Your task to perform on an android device: When is my next meeting? Image 0: 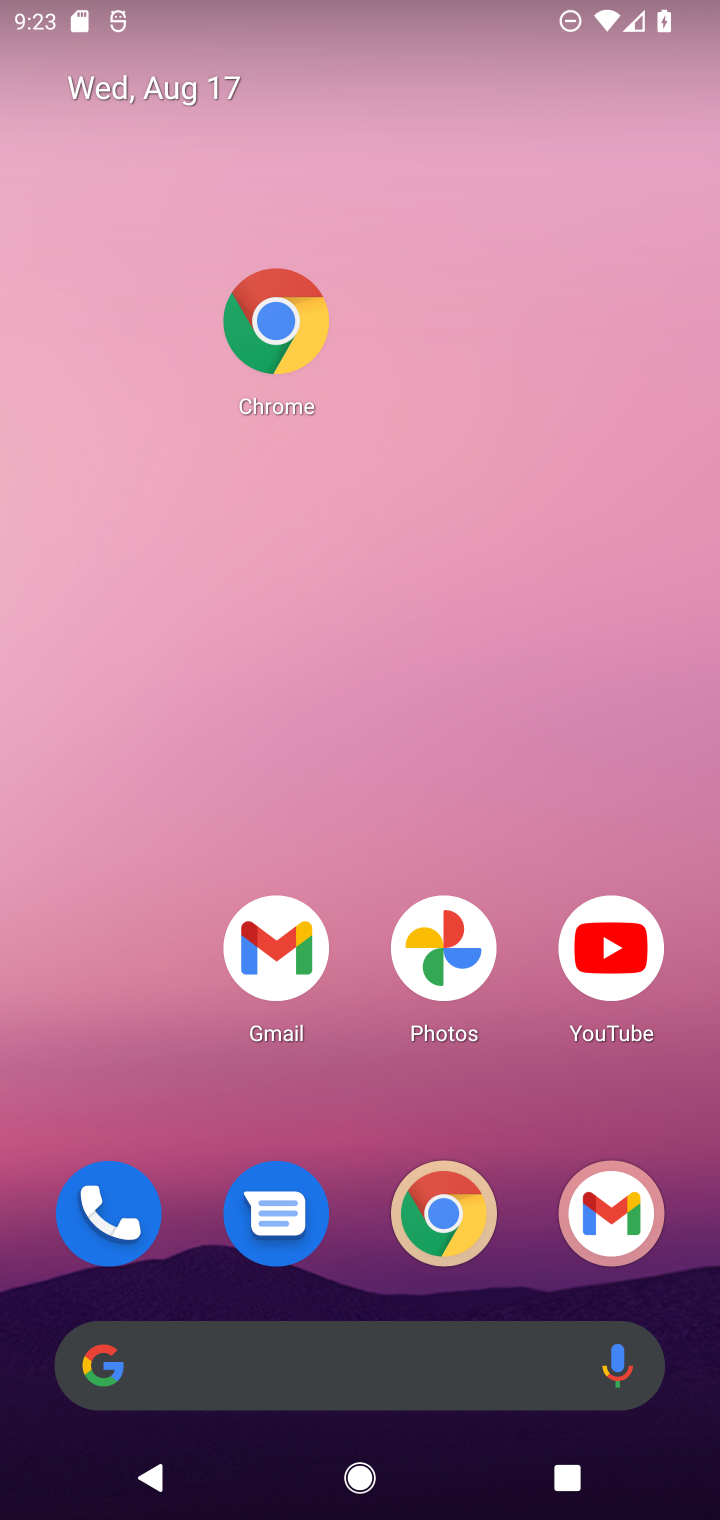
Step 0: drag from (371, 1306) to (382, 53)
Your task to perform on an android device: When is my next meeting? Image 1: 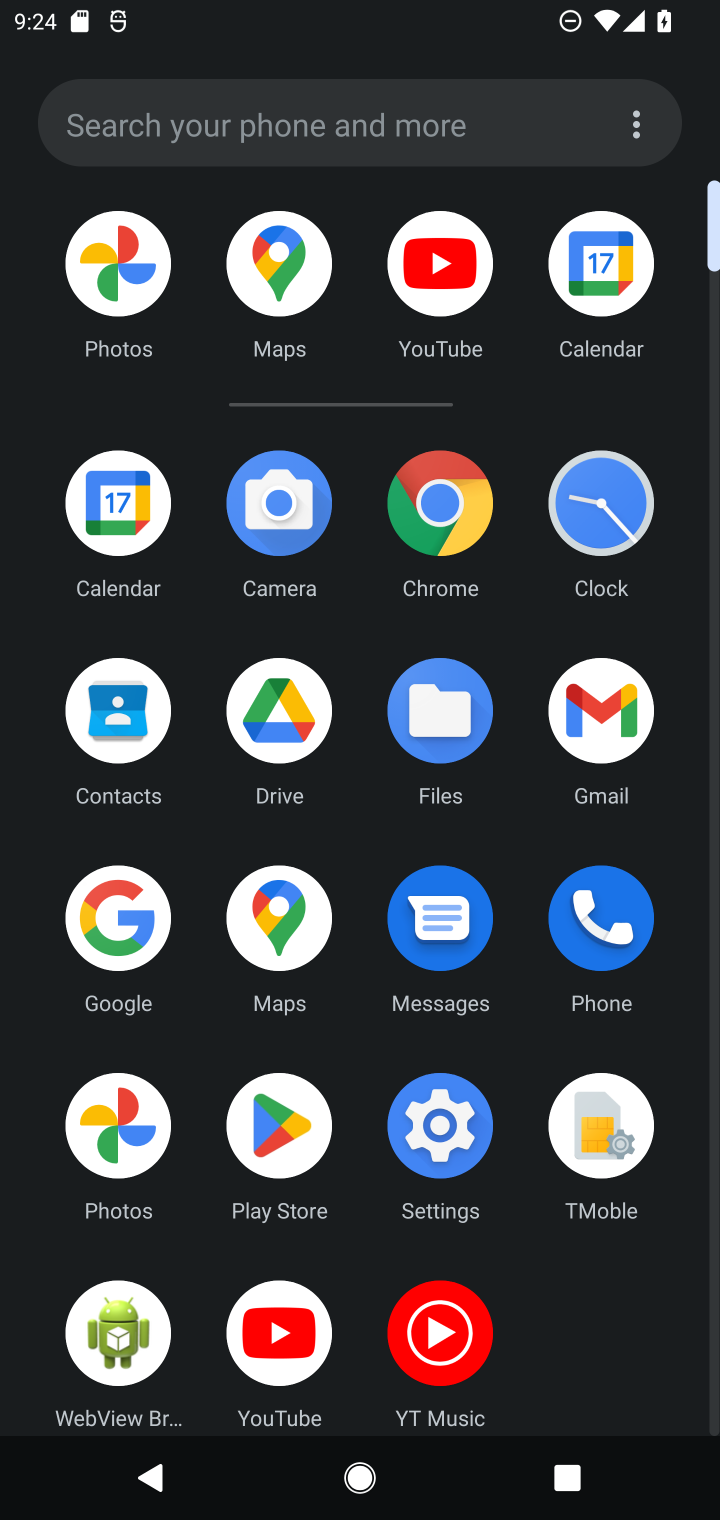
Step 1: click (609, 283)
Your task to perform on an android device: When is my next meeting? Image 2: 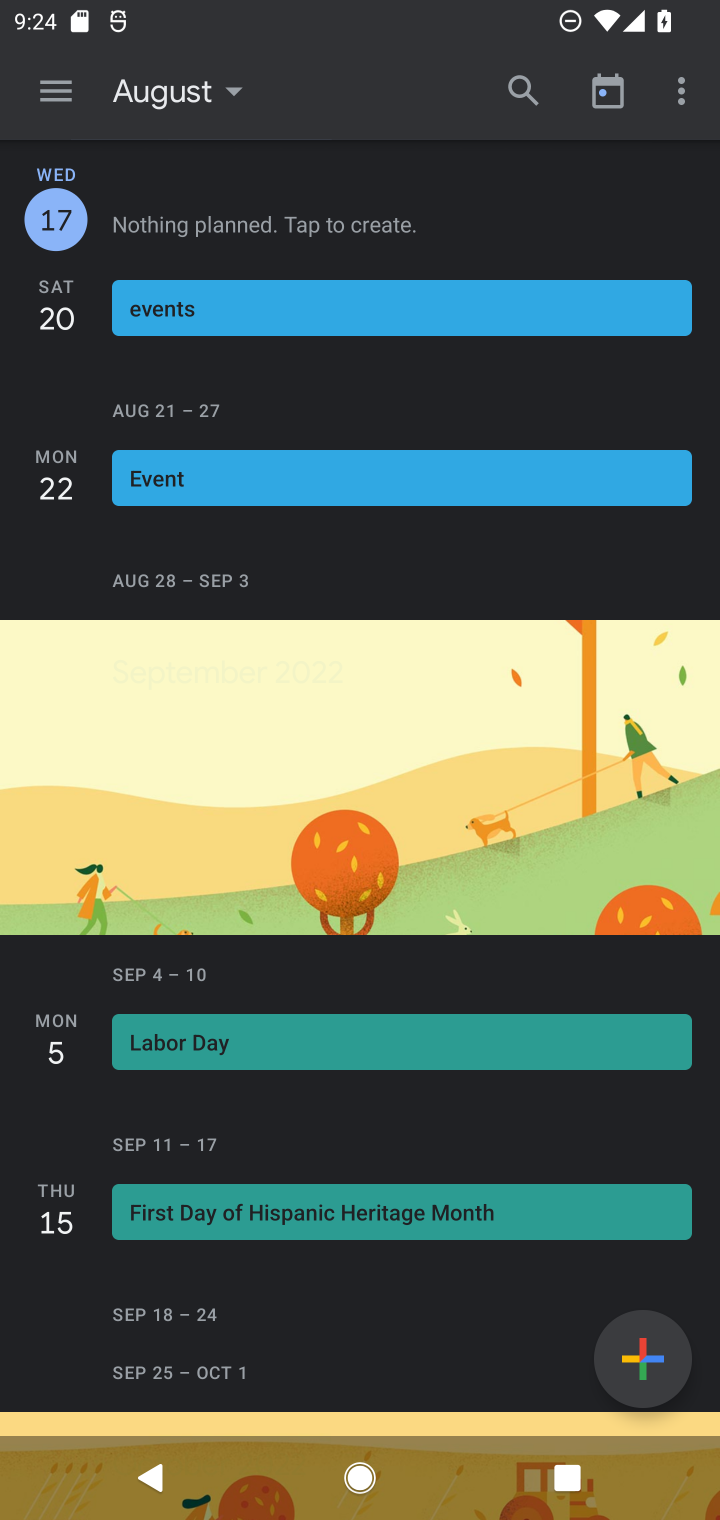
Step 2: task complete